Your task to perform on an android device: set the stopwatch Image 0: 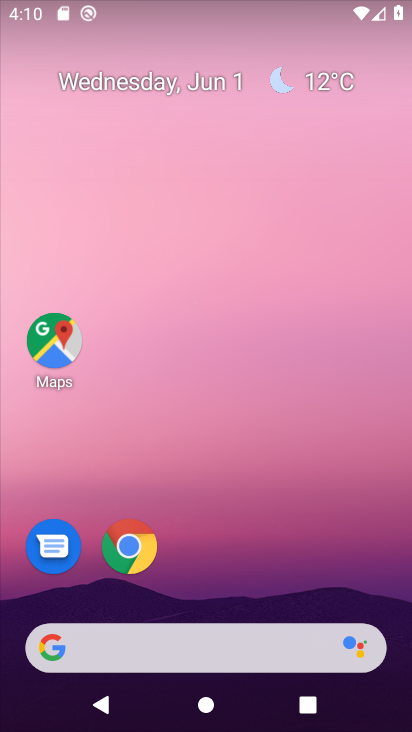
Step 0: drag from (190, 643) to (262, 115)
Your task to perform on an android device: set the stopwatch Image 1: 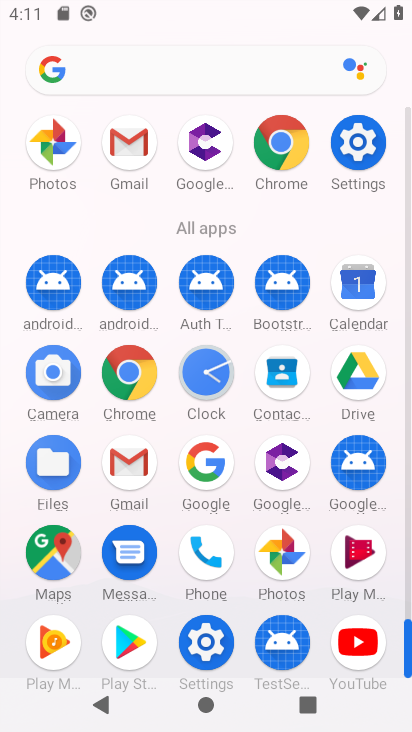
Step 1: click (206, 378)
Your task to perform on an android device: set the stopwatch Image 2: 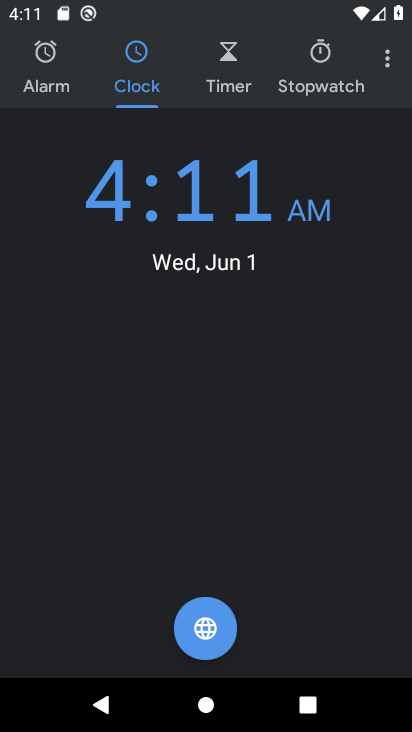
Step 2: click (355, 77)
Your task to perform on an android device: set the stopwatch Image 3: 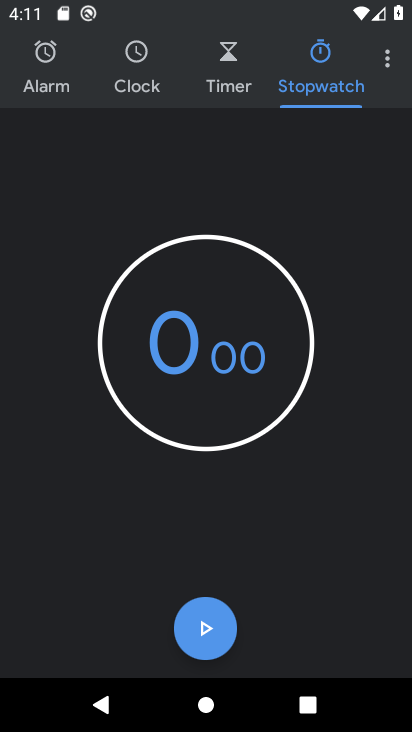
Step 3: click (224, 642)
Your task to perform on an android device: set the stopwatch Image 4: 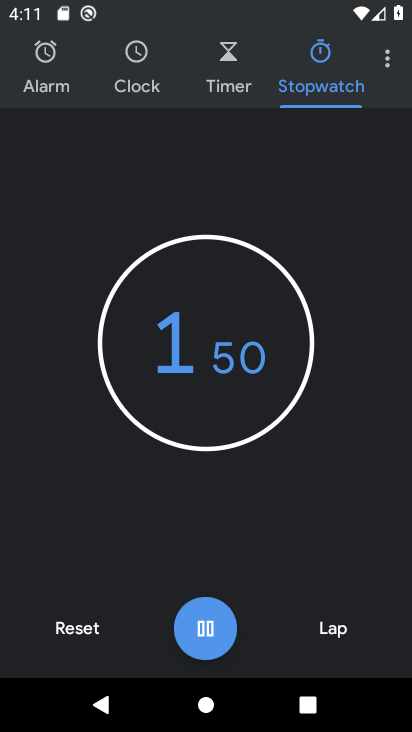
Step 4: task complete